Your task to perform on an android device: turn off notifications in google photos Image 0: 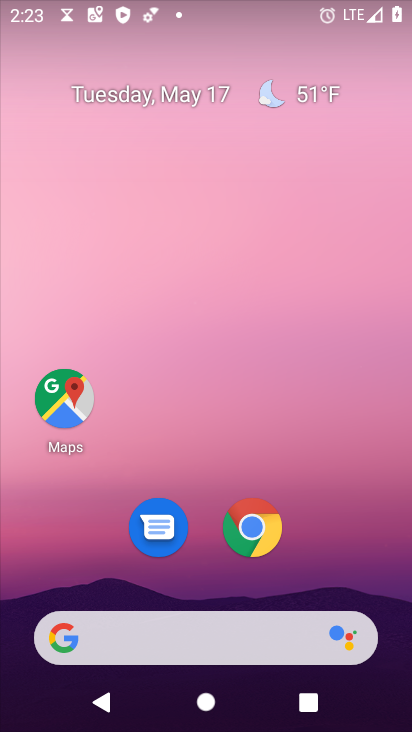
Step 0: press back button
Your task to perform on an android device: turn off notifications in google photos Image 1: 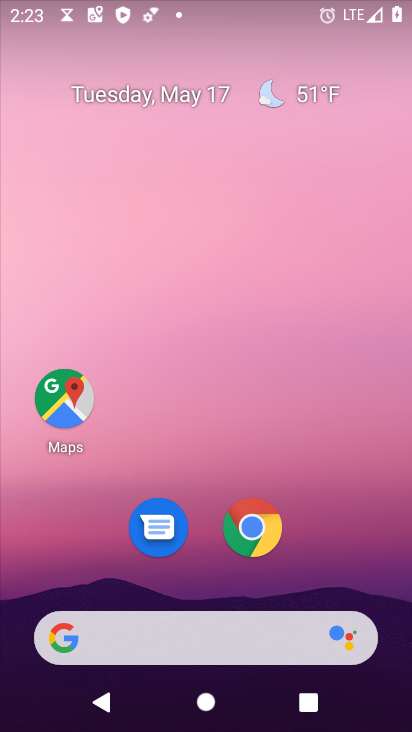
Step 1: drag from (336, 539) to (288, 98)
Your task to perform on an android device: turn off notifications in google photos Image 2: 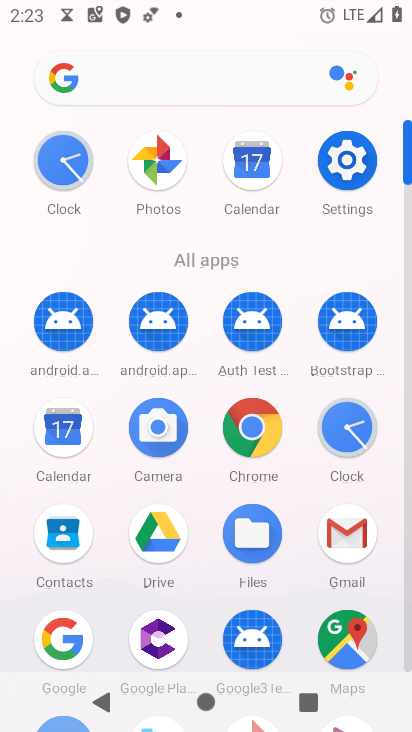
Step 2: click (157, 159)
Your task to perform on an android device: turn off notifications in google photos Image 3: 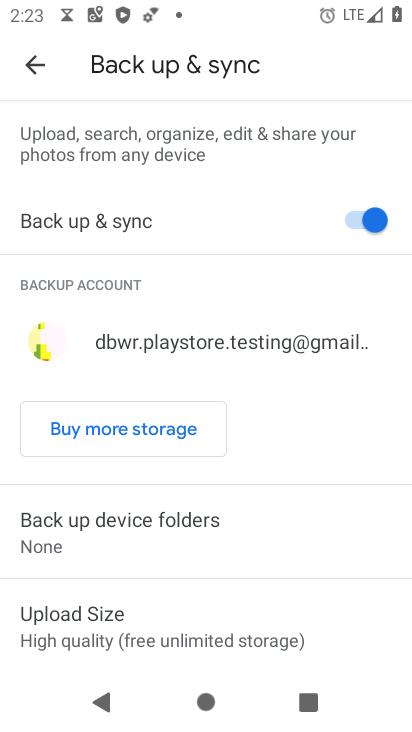
Step 3: press back button
Your task to perform on an android device: turn off notifications in google photos Image 4: 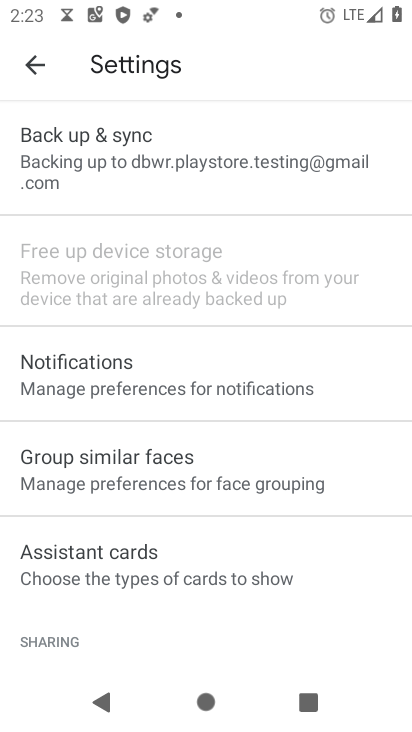
Step 4: click (92, 353)
Your task to perform on an android device: turn off notifications in google photos Image 5: 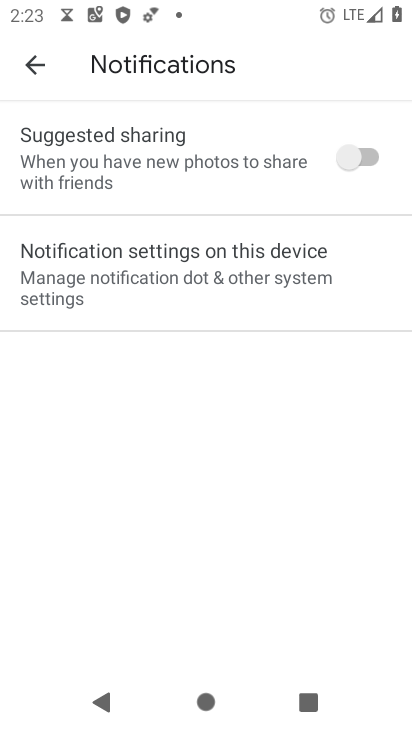
Step 5: click (138, 251)
Your task to perform on an android device: turn off notifications in google photos Image 6: 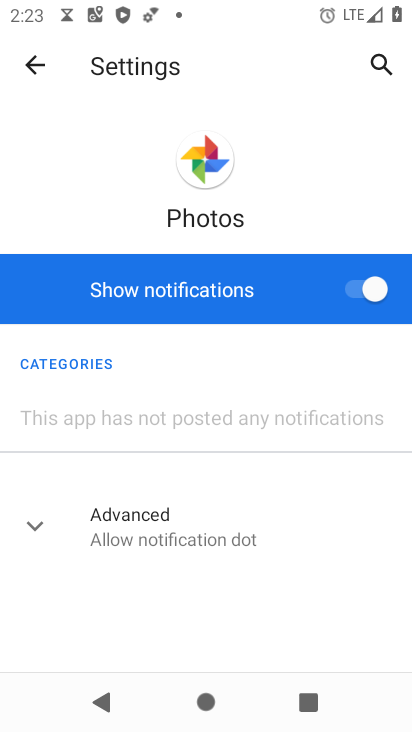
Step 6: click (362, 291)
Your task to perform on an android device: turn off notifications in google photos Image 7: 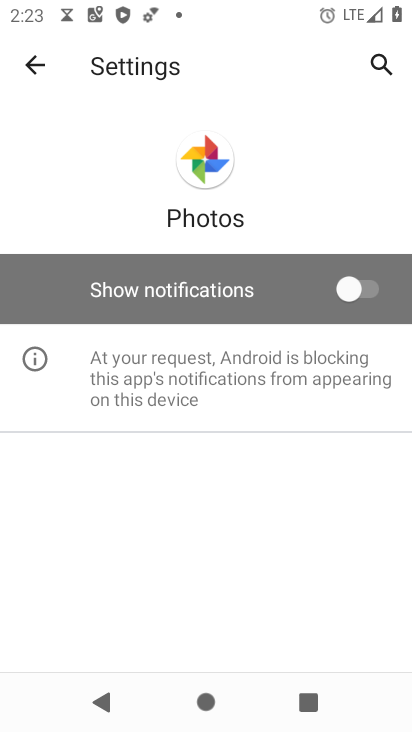
Step 7: task complete